Your task to perform on an android device: Turn on the flashlight Image 0: 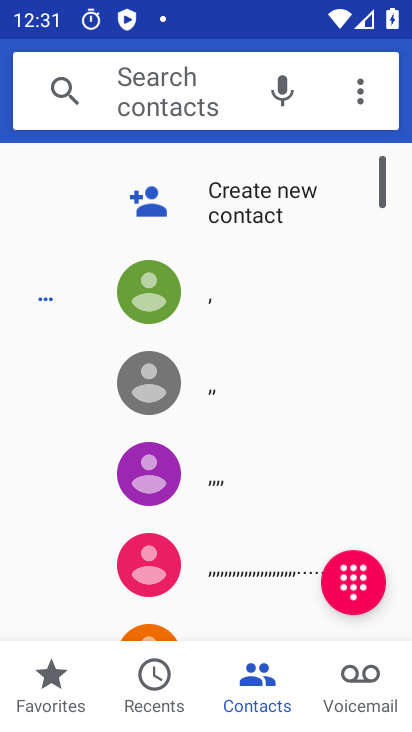
Step 0: press home button
Your task to perform on an android device: Turn on the flashlight Image 1: 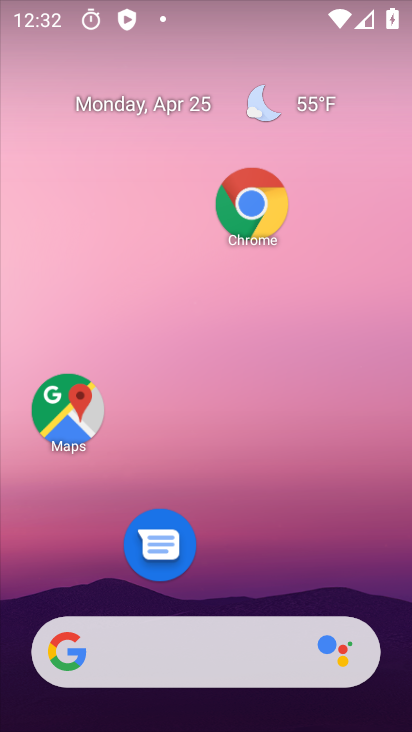
Step 1: drag from (275, 695) to (319, 344)
Your task to perform on an android device: Turn on the flashlight Image 2: 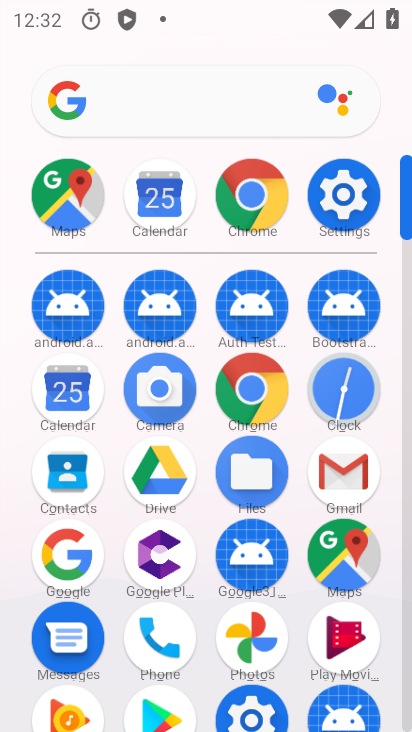
Step 2: click (352, 197)
Your task to perform on an android device: Turn on the flashlight Image 3: 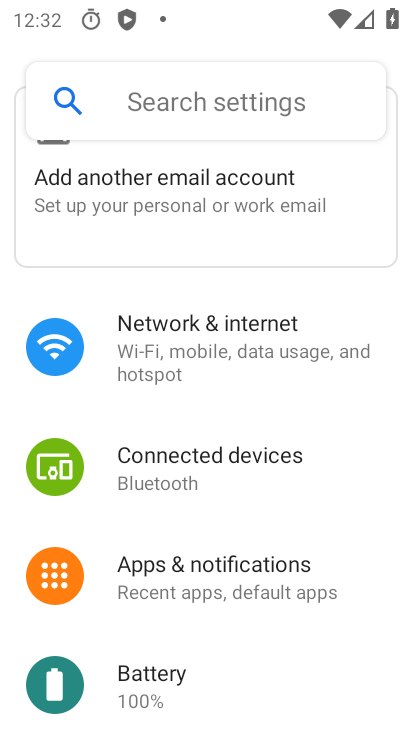
Step 3: click (244, 109)
Your task to perform on an android device: Turn on the flashlight Image 4: 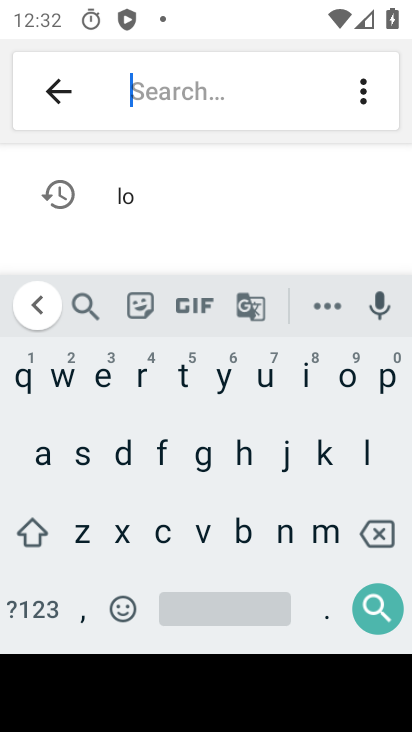
Step 4: click (159, 451)
Your task to perform on an android device: Turn on the flashlight Image 5: 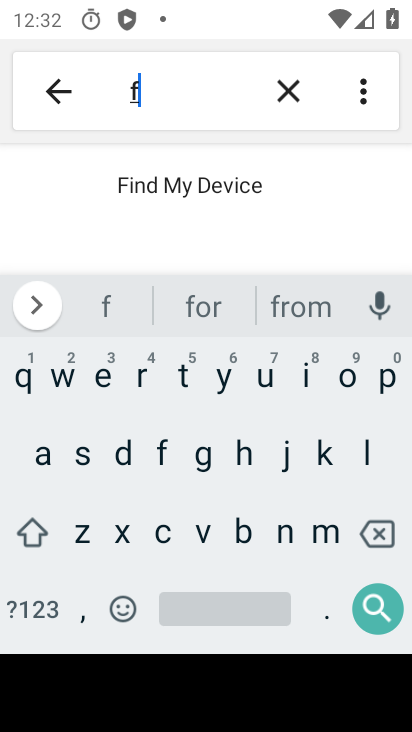
Step 5: click (362, 445)
Your task to perform on an android device: Turn on the flashlight Image 6: 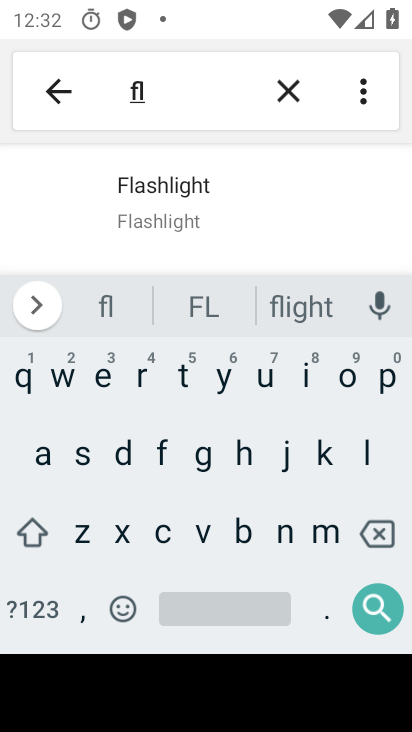
Step 6: click (160, 223)
Your task to perform on an android device: Turn on the flashlight Image 7: 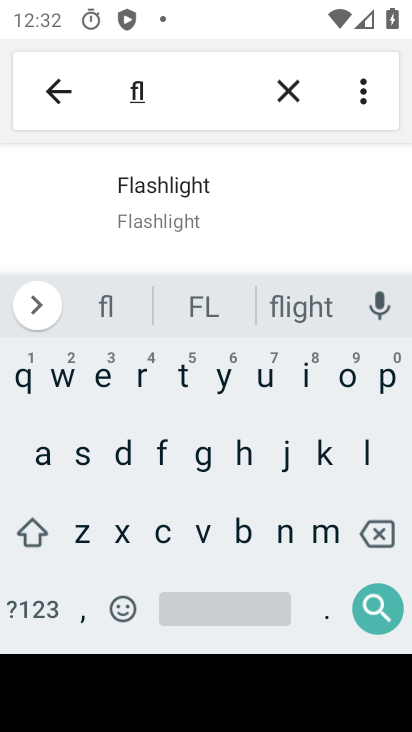
Step 7: click (157, 215)
Your task to perform on an android device: Turn on the flashlight Image 8: 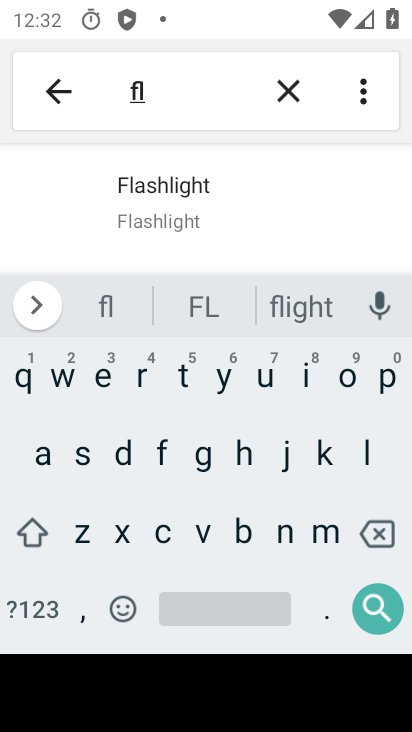
Step 8: task complete